Your task to perform on an android device: turn notification dots off Image 0: 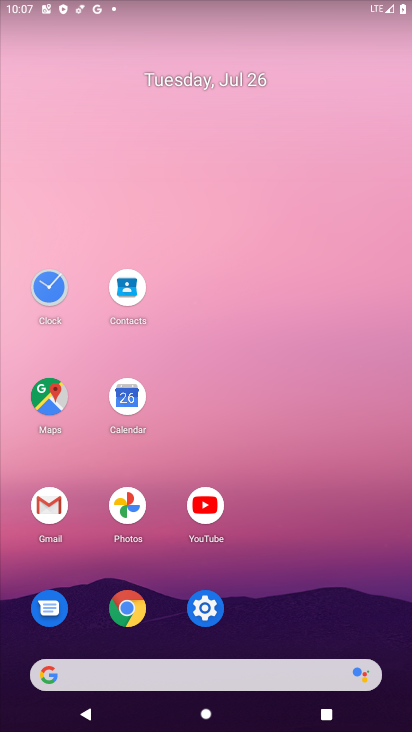
Step 0: click (206, 605)
Your task to perform on an android device: turn notification dots off Image 1: 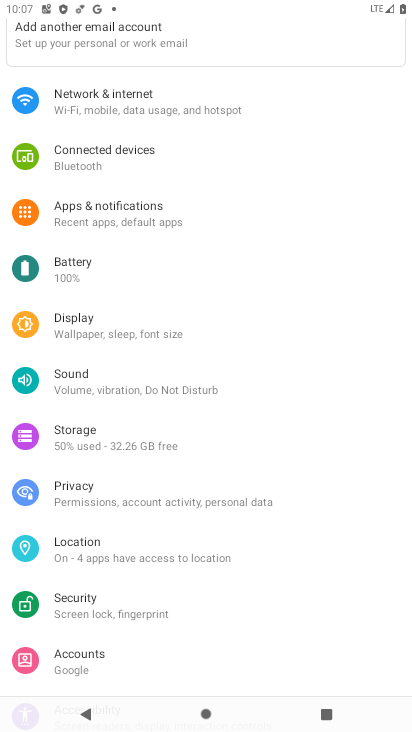
Step 1: click (110, 212)
Your task to perform on an android device: turn notification dots off Image 2: 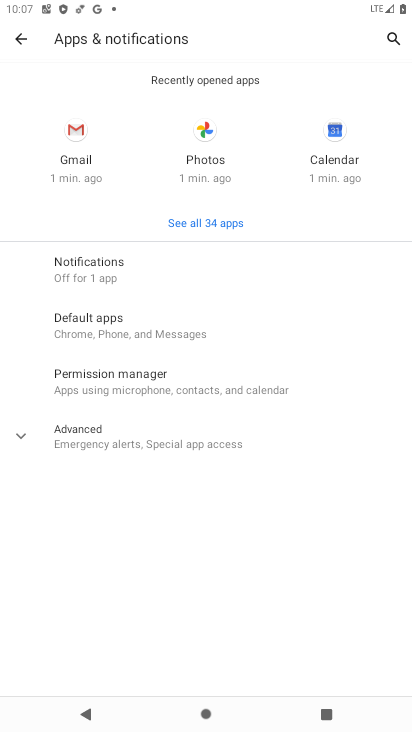
Step 2: click (79, 256)
Your task to perform on an android device: turn notification dots off Image 3: 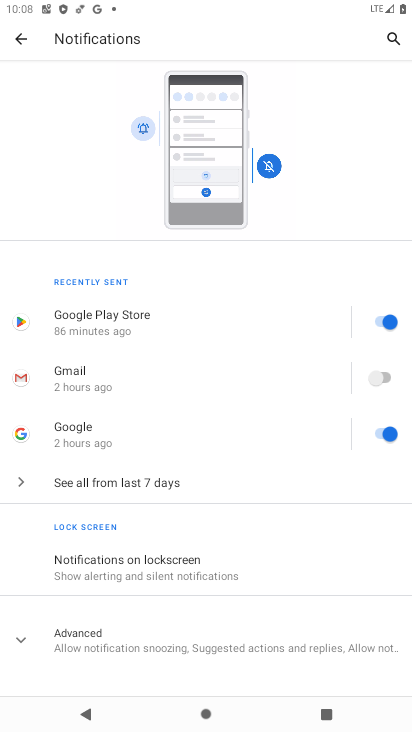
Step 3: click (27, 637)
Your task to perform on an android device: turn notification dots off Image 4: 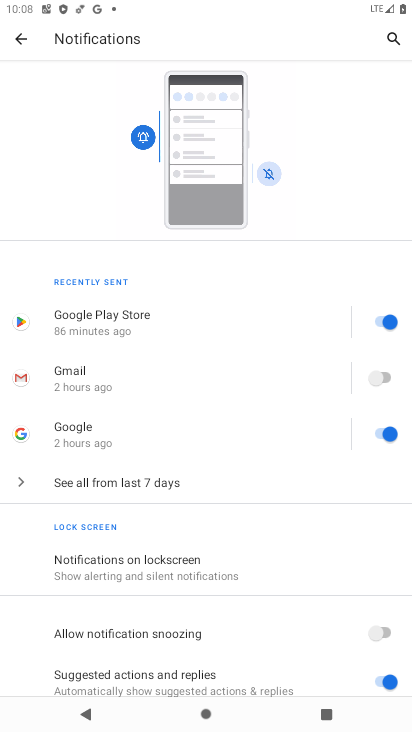
Step 4: drag from (254, 614) to (259, 251)
Your task to perform on an android device: turn notification dots off Image 5: 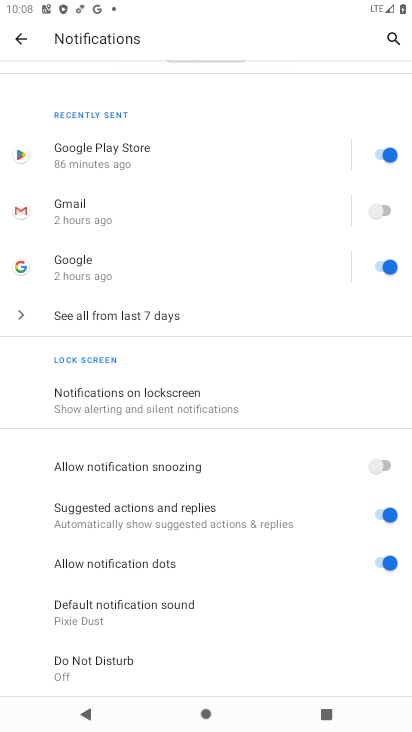
Step 5: click (385, 561)
Your task to perform on an android device: turn notification dots off Image 6: 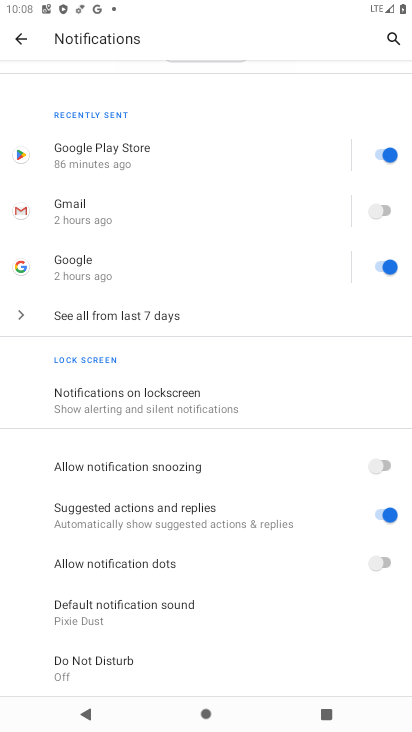
Step 6: task complete